Your task to perform on an android device: all mails in gmail Image 0: 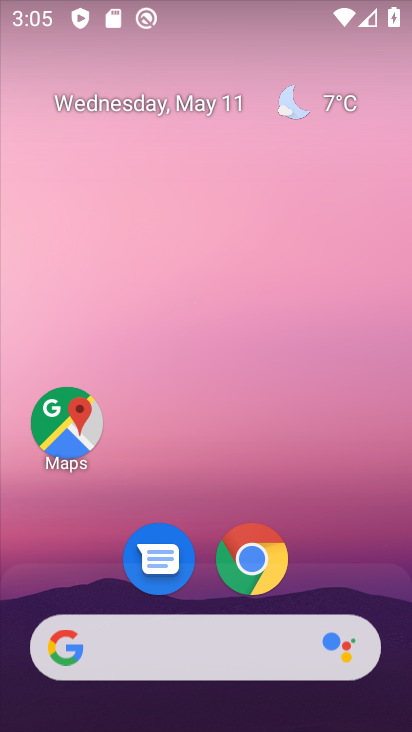
Step 0: drag from (195, 587) to (168, 246)
Your task to perform on an android device: all mails in gmail Image 1: 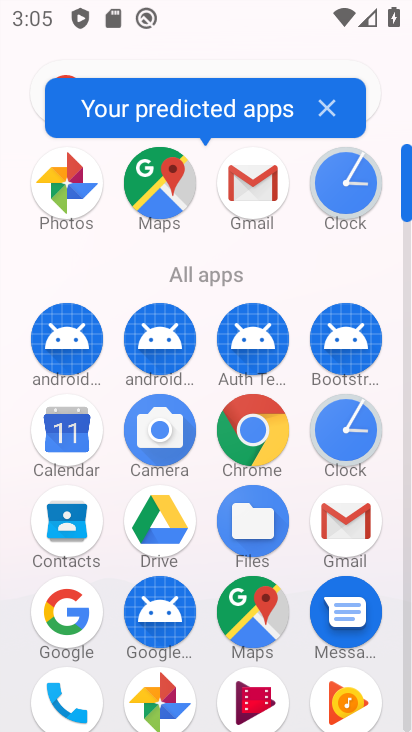
Step 1: click (328, 528)
Your task to perform on an android device: all mails in gmail Image 2: 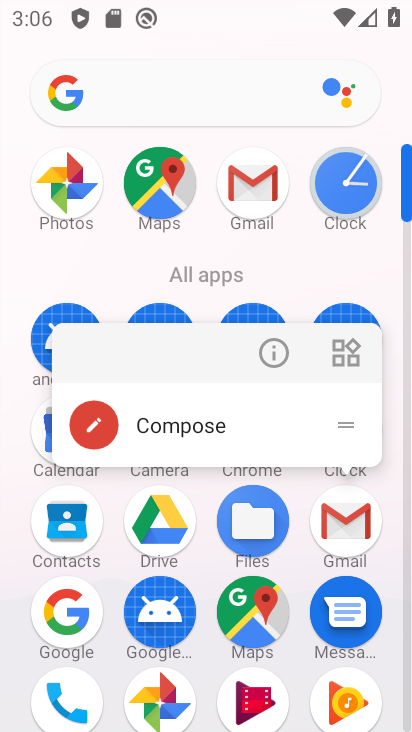
Step 2: click (357, 526)
Your task to perform on an android device: all mails in gmail Image 3: 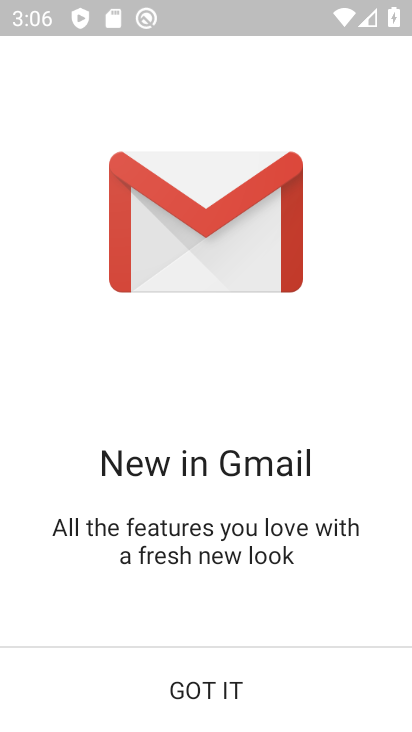
Step 3: click (174, 690)
Your task to perform on an android device: all mails in gmail Image 4: 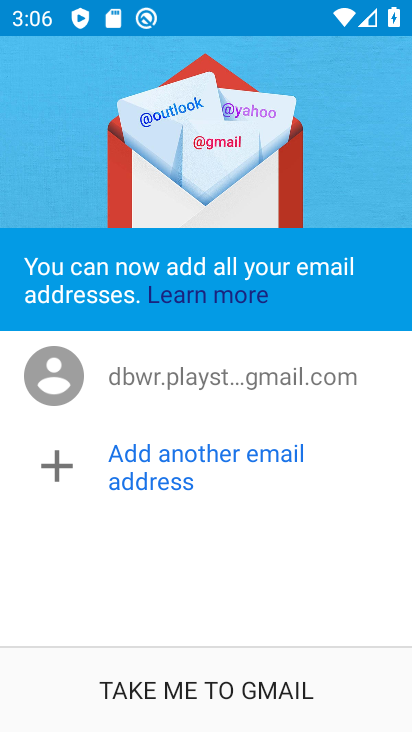
Step 4: click (182, 696)
Your task to perform on an android device: all mails in gmail Image 5: 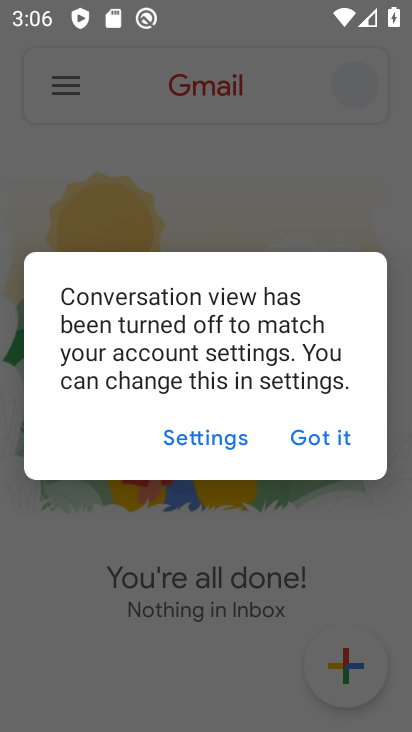
Step 5: click (311, 431)
Your task to perform on an android device: all mails in gmail Image 6: 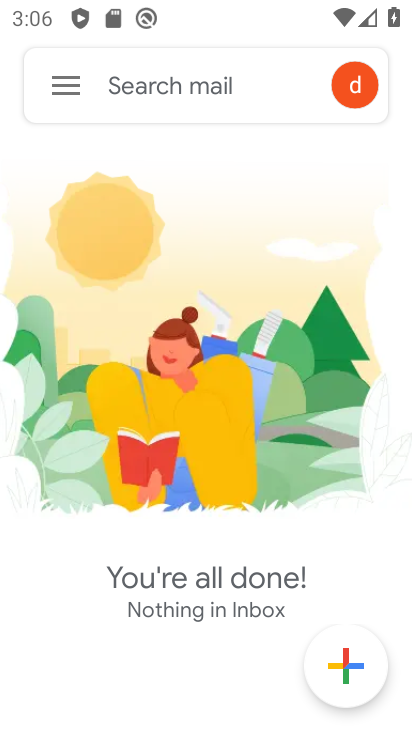
Step 6: click (62, 73)
Your task to perform on an android device: all mails in gmail Image 7: 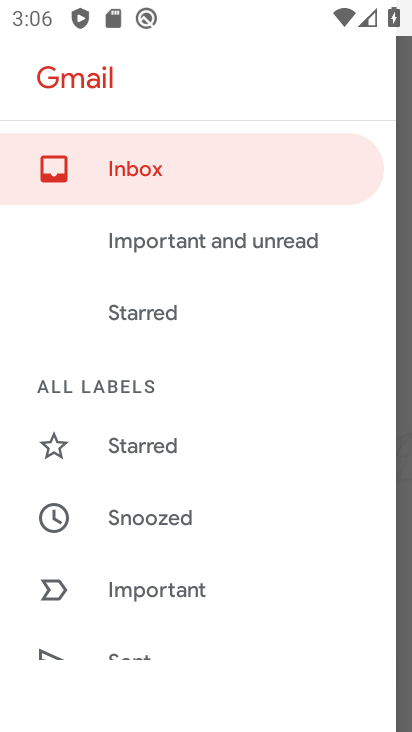
Step 7: drag from (175, 632) to (191, 239)
Your task to perform on an android device: all mails in gmail Image 8: 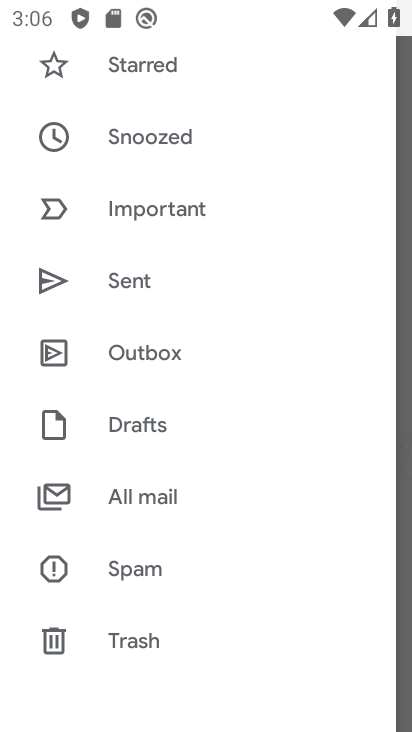
Step 8: click (113, 492)
Your task to perform on an android device: all mails in gmail Image 9: 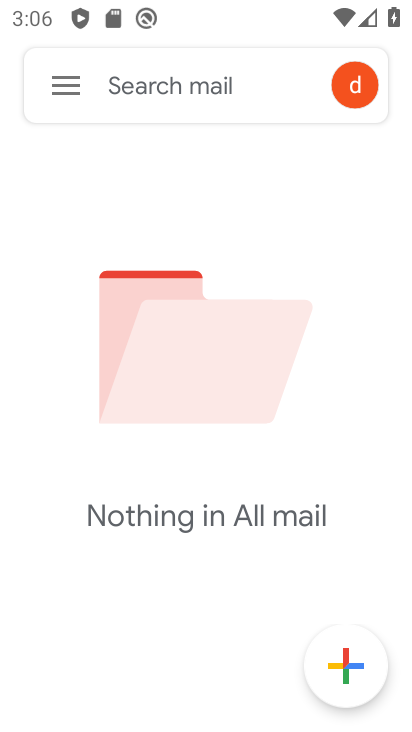
Step 9: task complete